Your task to perform on an android device: Search for the best rated 150-piece drill bit set on Aliexpress. Image 0: 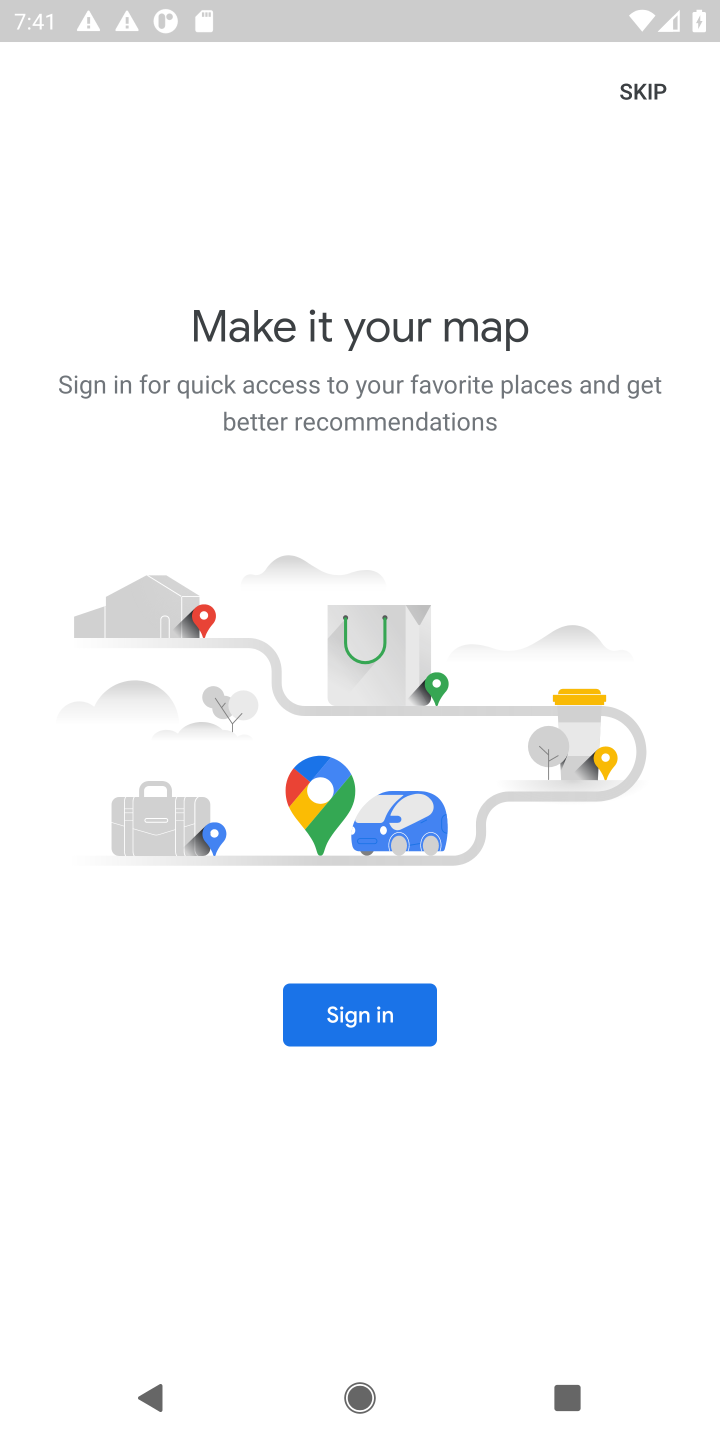
Step 0: press home button
Your task to perform on an android device: Search for the best rated 150-piece drill bit set on Aliexpress. Image 1: 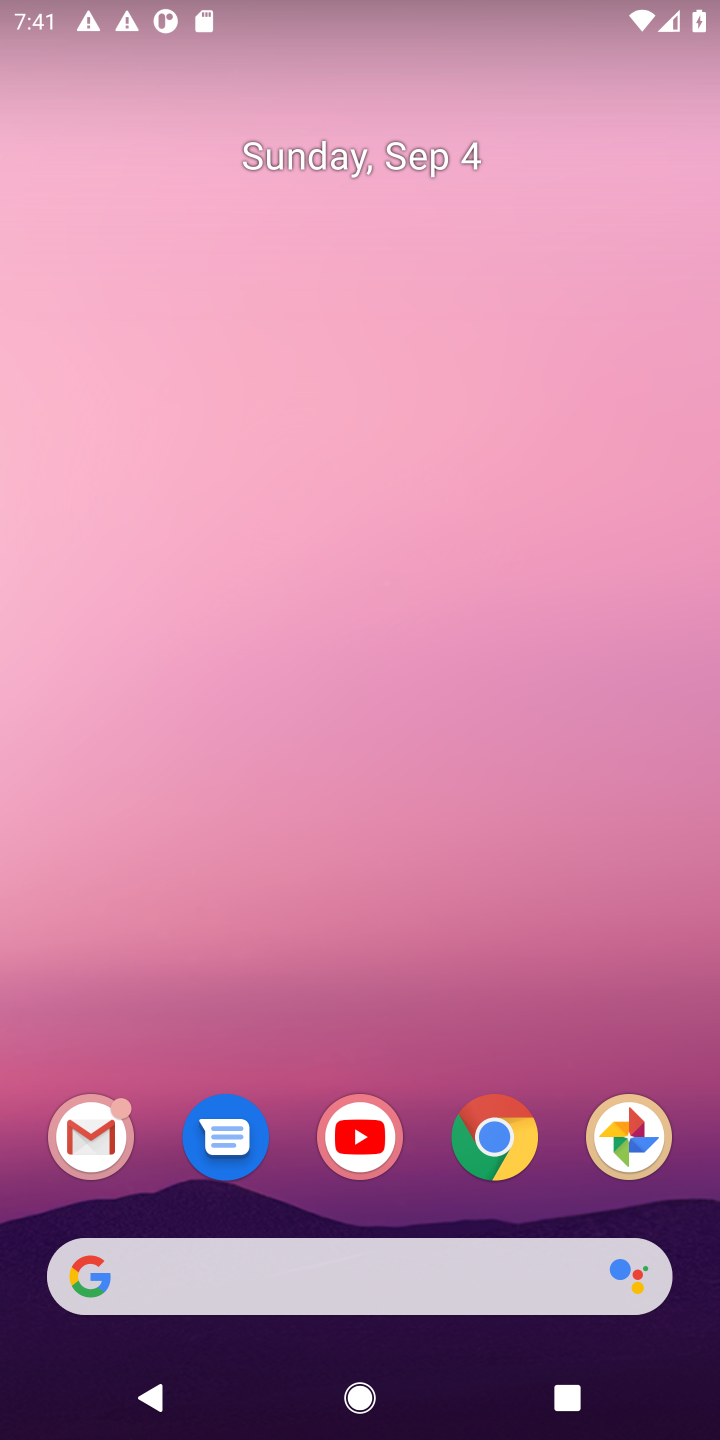
Step 1: click (491, 1138)
Your task to perform on an android device: Search for the best rated 150-piece drill bit set on Aliexpress. Image 2: 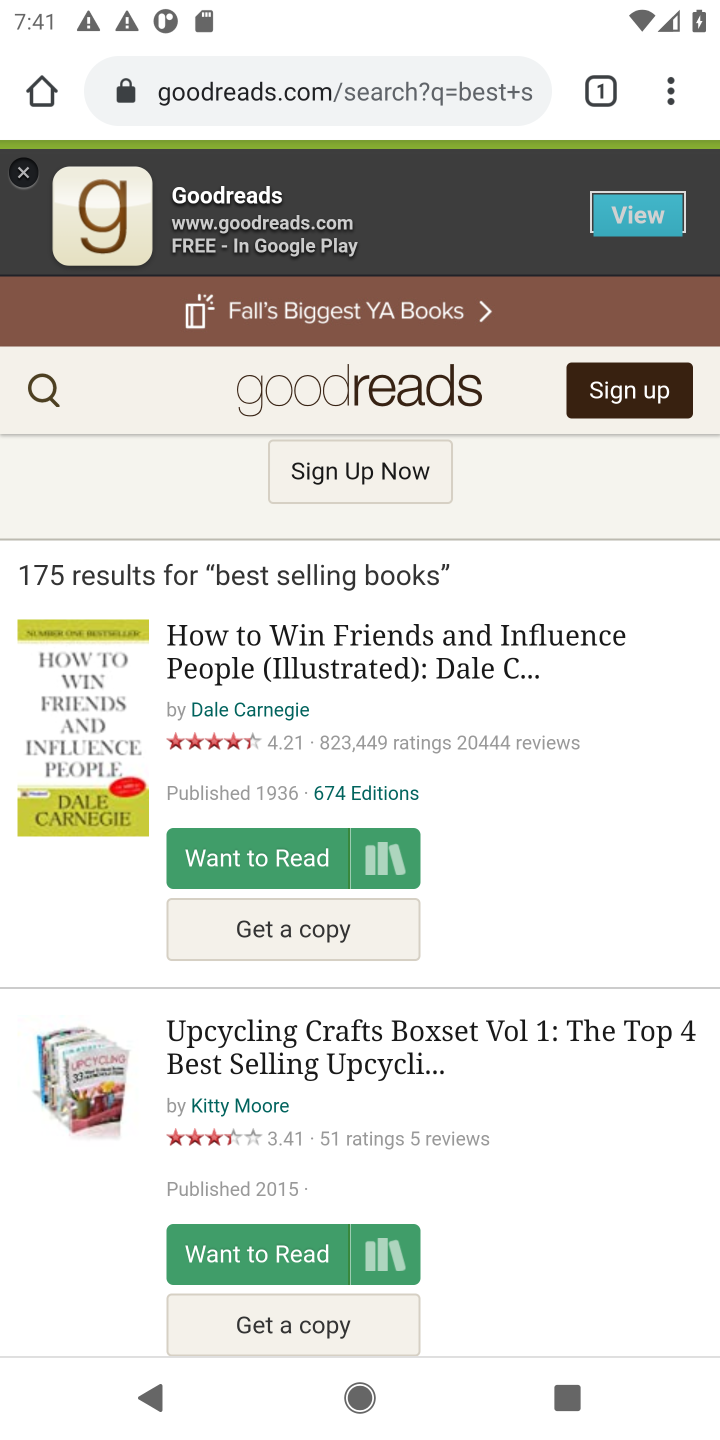
Step 2: click (419, 83)
Your task to perform on an android device: Search for the best rated 150-piece drill bit set on Aliexpress. Image 3: 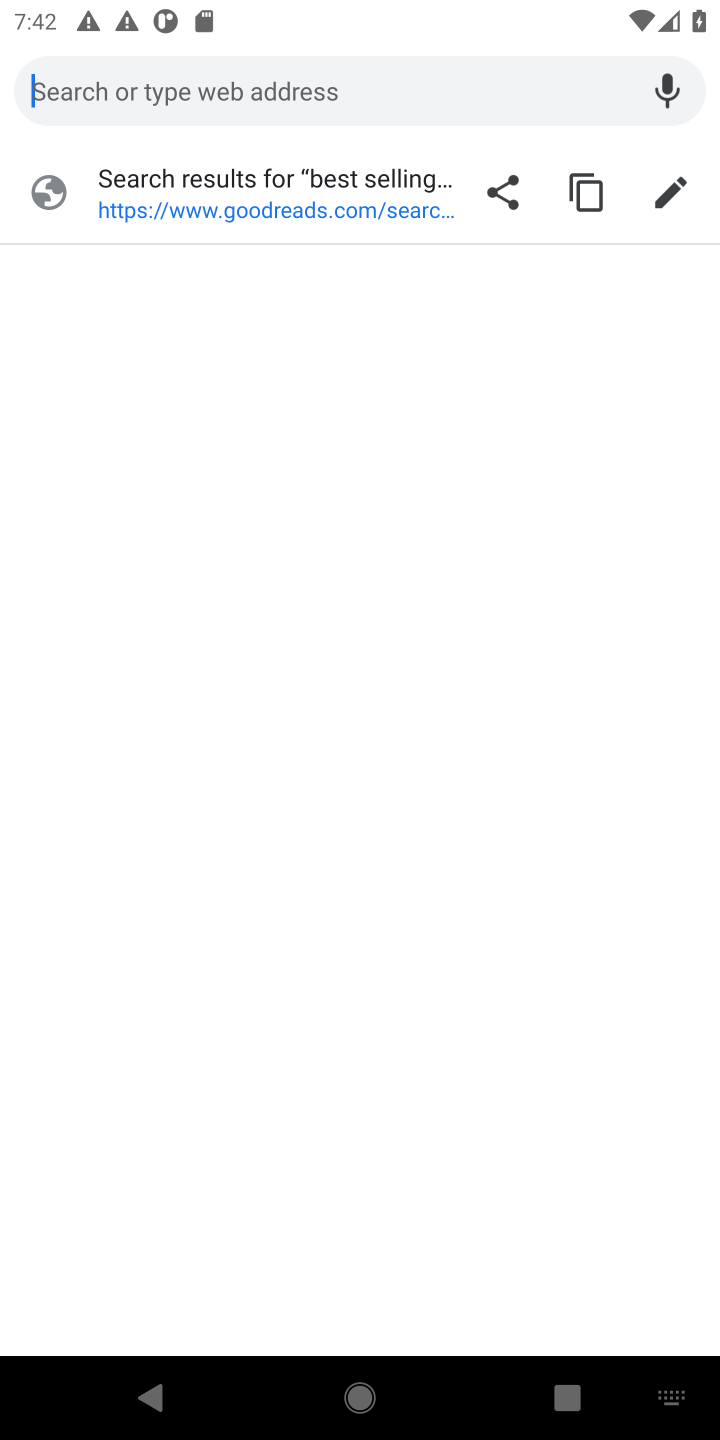
Step 3: type "Aliexpress"
Your task to perform on an android device: Search for the best rated 150-piece drill bit set on Aliexpress. Image 4: 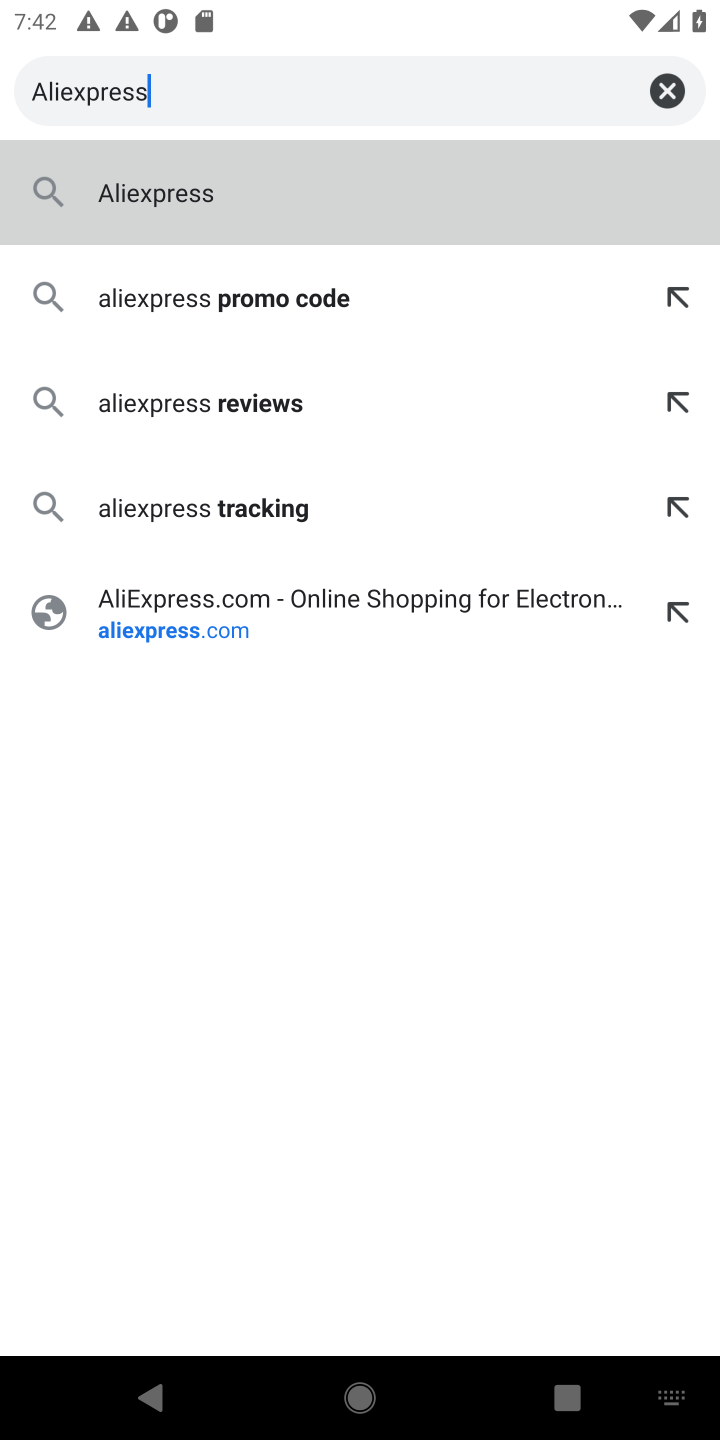
Step 4: click (124, 206)
Your task to perform on an android device: Search for the best rated 150-piece drill bit set on Aliexpress. Image 5: 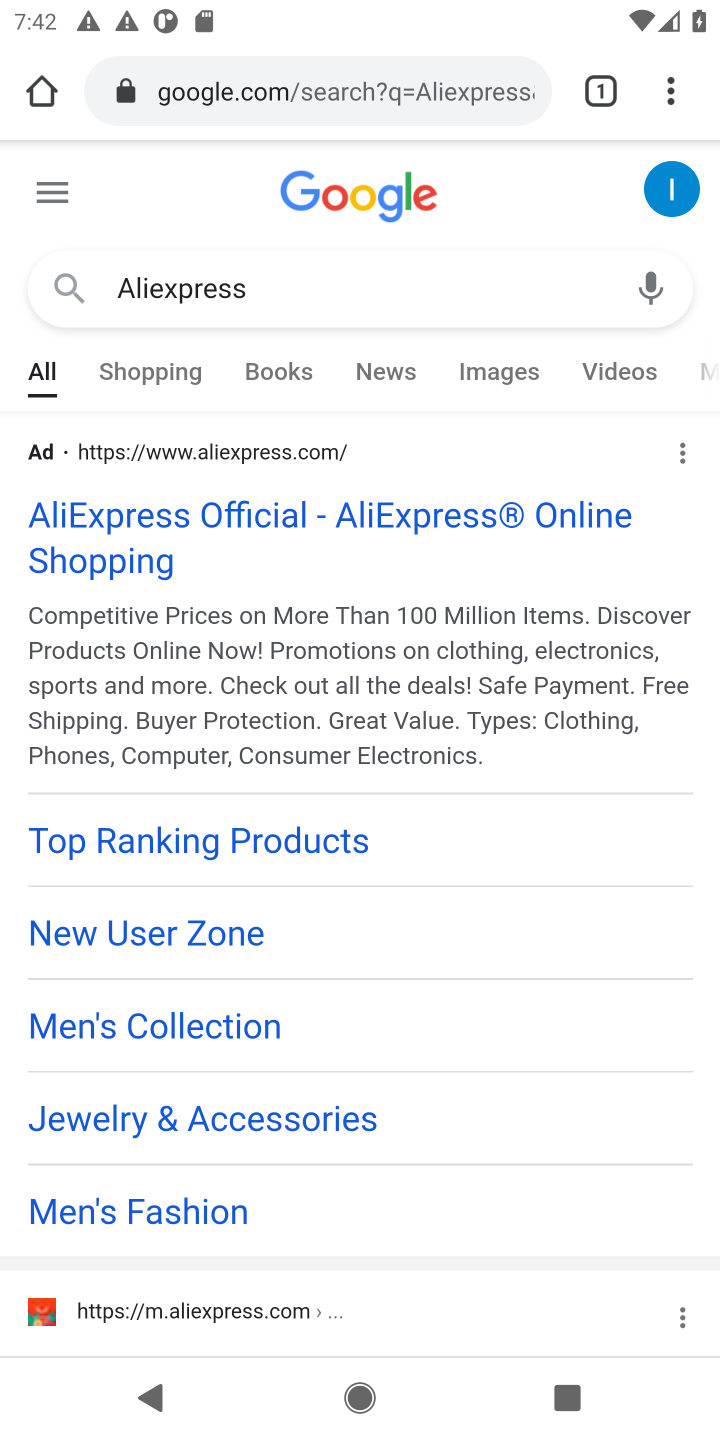
Step 5: drag from (436, 1319) to (480, 814)
Your task to perform on an android device: Search for the best rated 150-piece drill bit set on Aliexpress. Image 6: 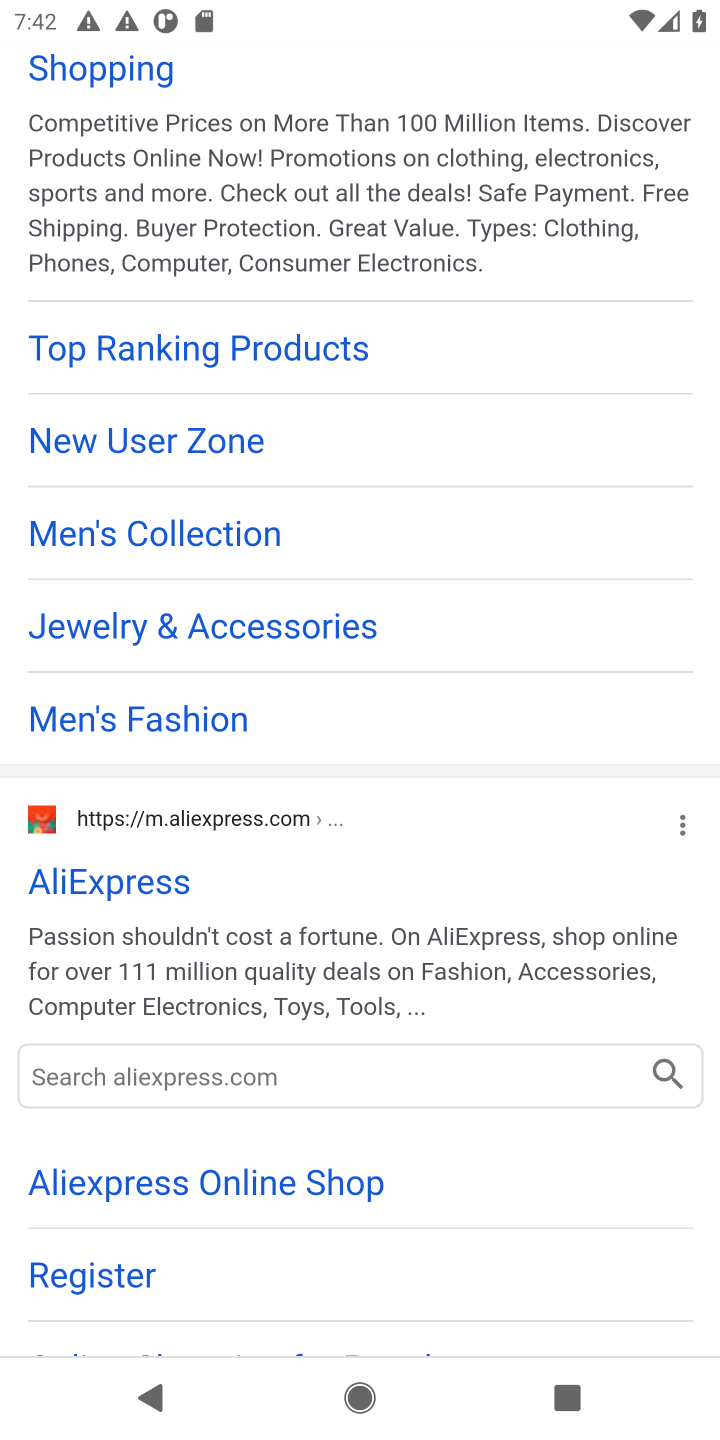
Step 6: click (192, 827)
Your task to perform on an android device: Search for the best rated 150-piece drill bit set on Aliexpress. Image 7: 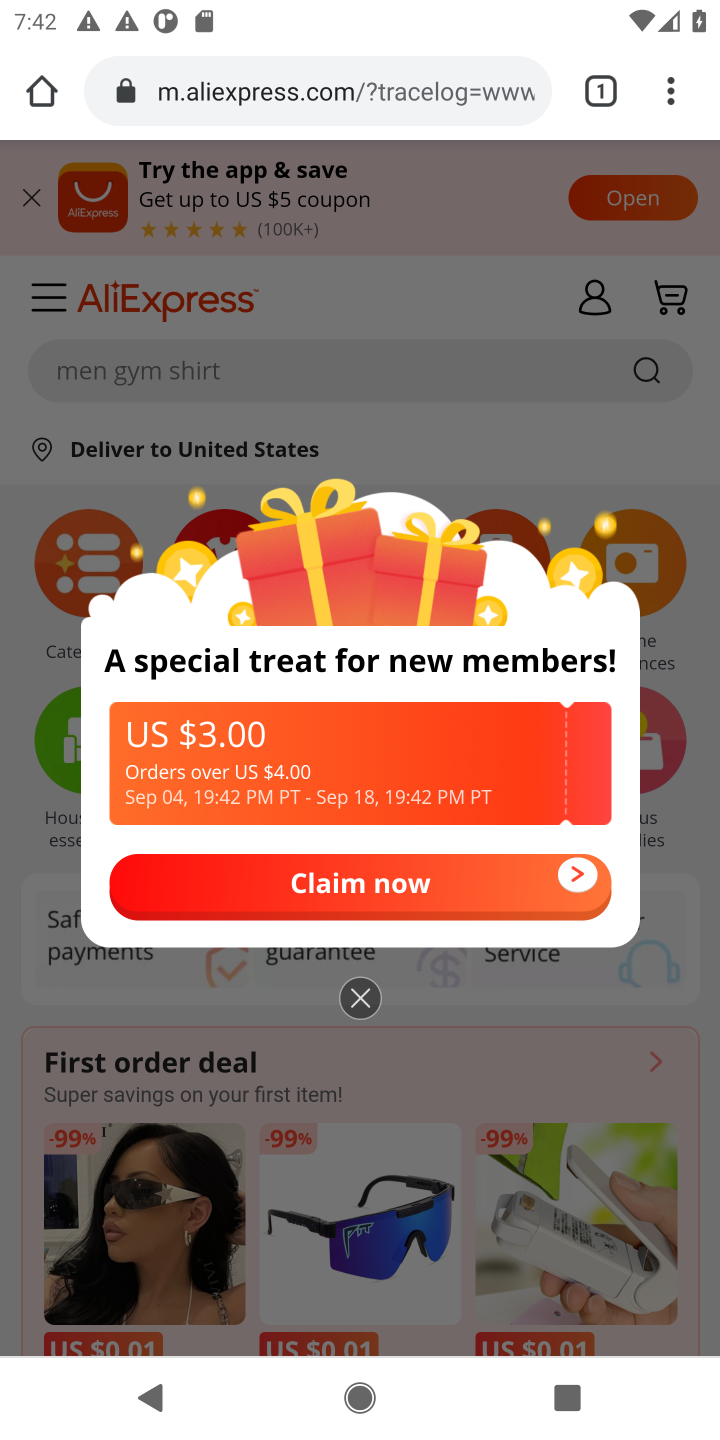
Step 7: click (526, 358)
Your task to perform on an android device: Search for the best rated 150-piece drill bit set on Aliexpress. Image 8: 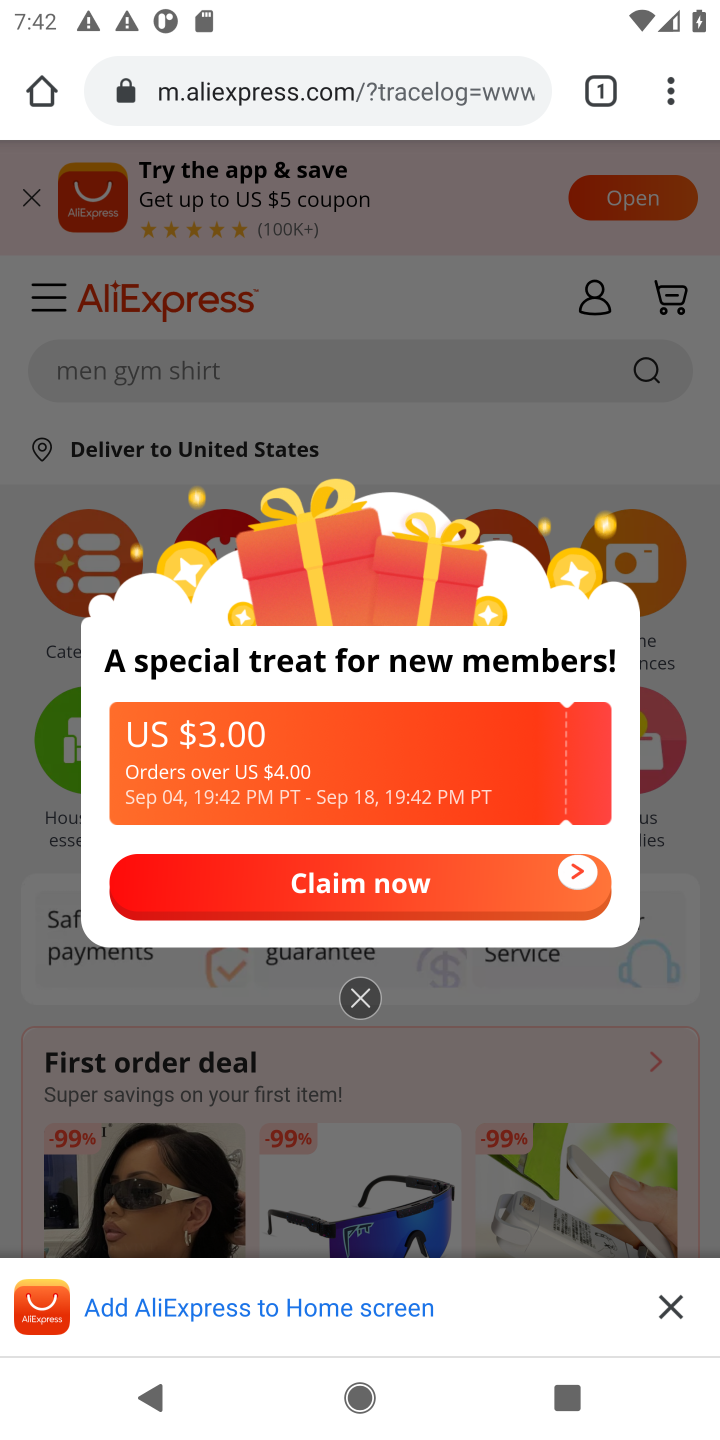
Step 8: click (665, 1307)
Your task to perform on an android device: Search for the best rated 150-piece drill bit set on Aliexpress. Image 9: 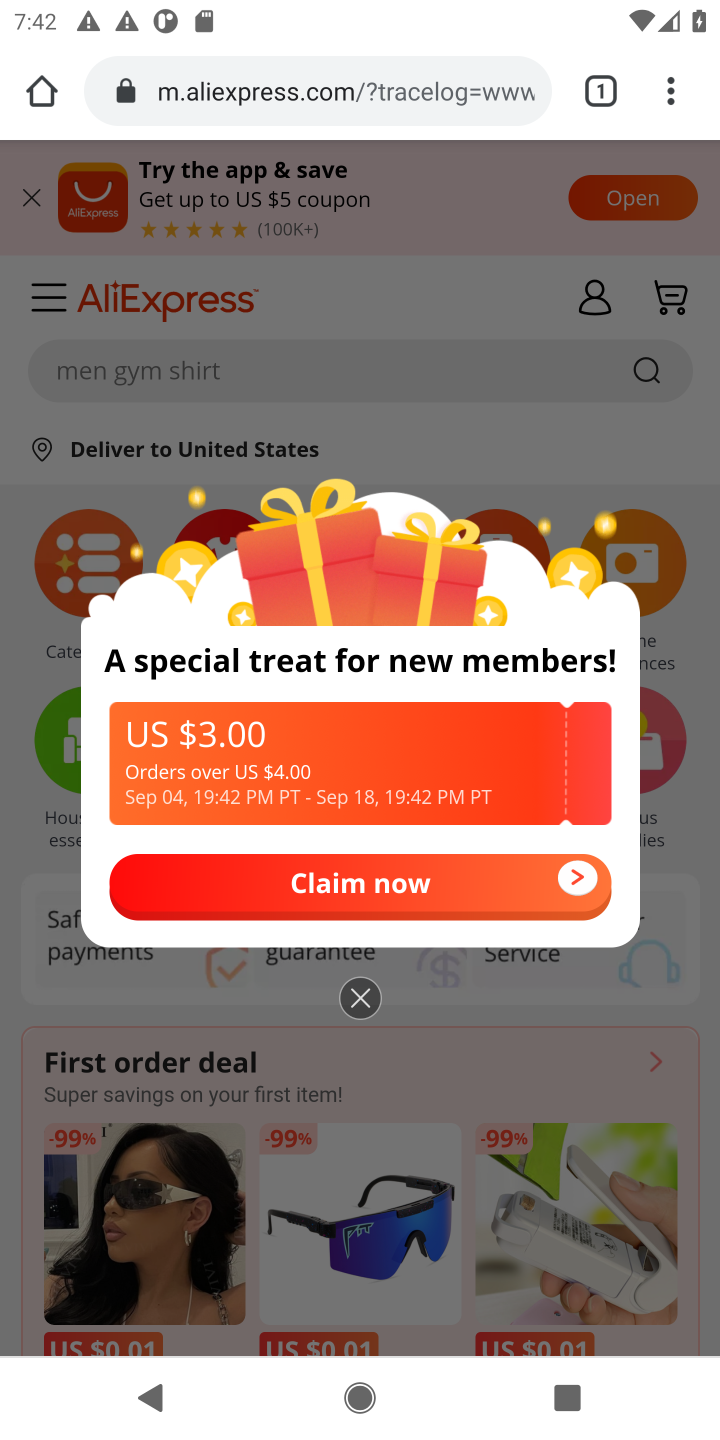
Step 9: click (352, 1001)
Your task to perform on an android device: Search for the best rated 150-piece drill bit set on Aliexpress. Image 10: 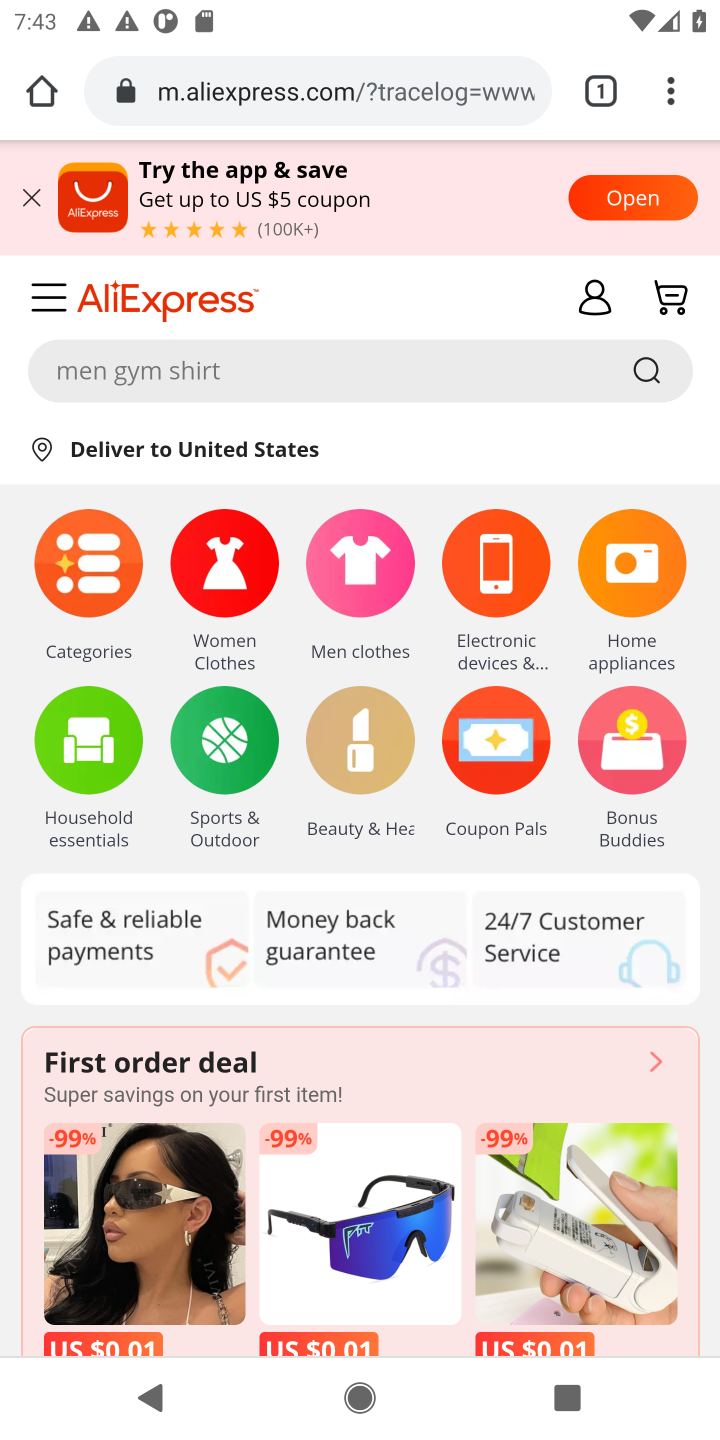
Step 10: click (328, 378)
Your task to perform on an android device: Search for the best rated 150-piece drill bit set on Aliexpress. Image 11: 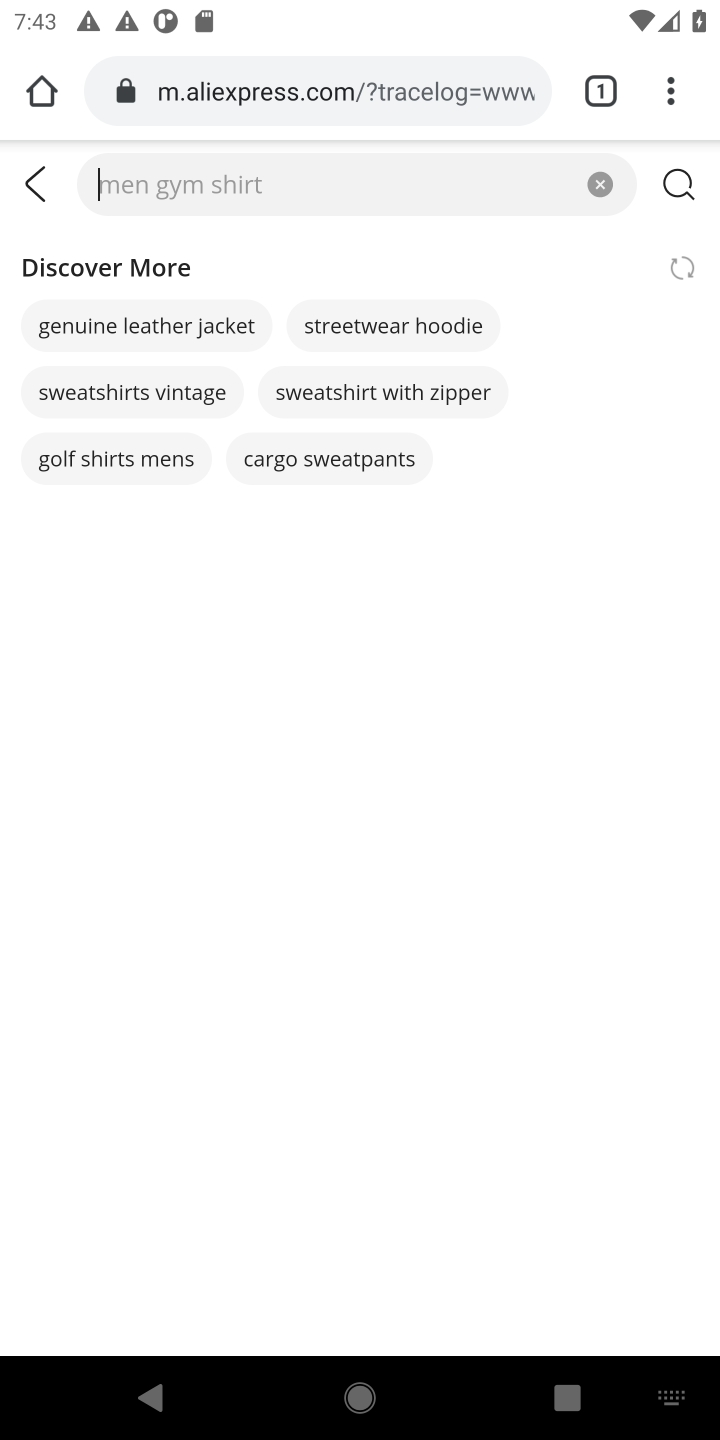
Step 11: type "best rated 150-piece drill bit set "
Your task to perform on an android device: Search for the best rated 150-piece drill bit set on Aliexpress. Image 12: 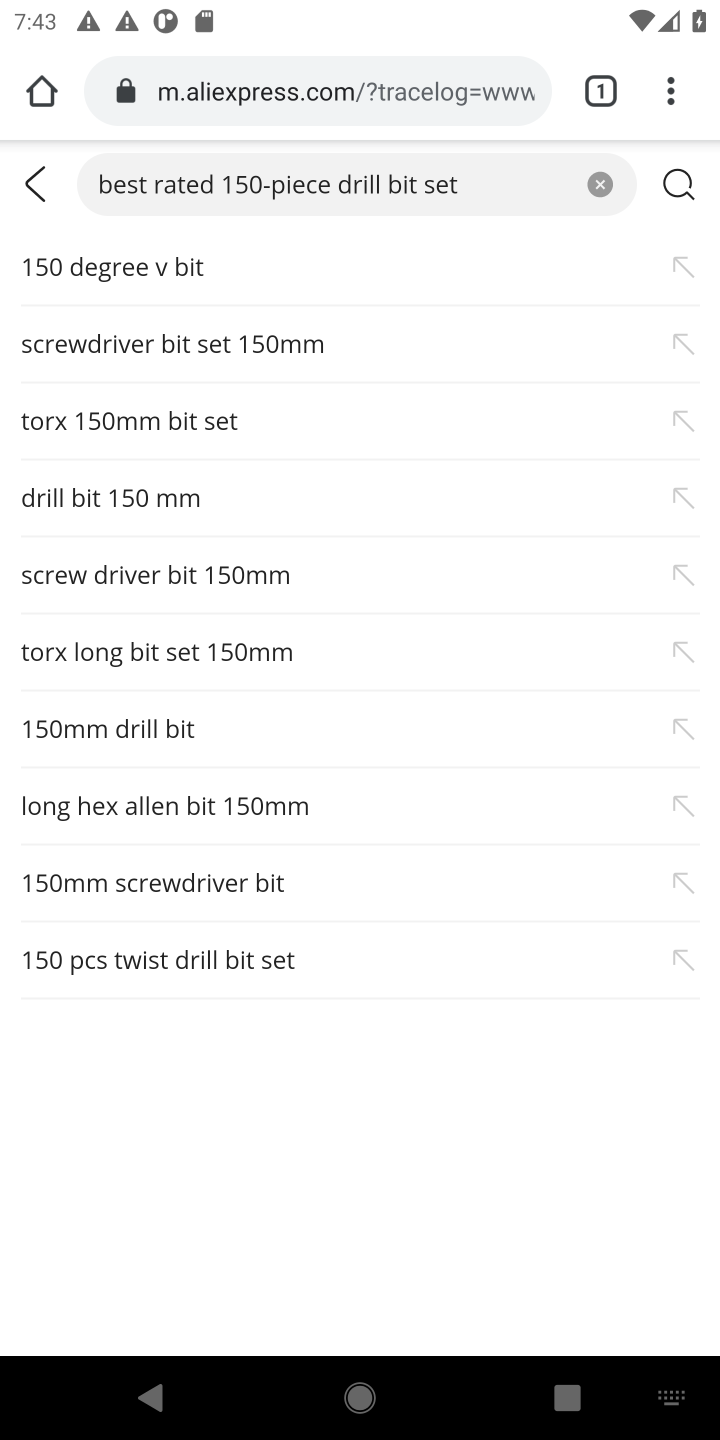
Step 12: click (678, 174)
Your task to perform on an android device: Search for the best rated 150-piece drill bit set on Aliexpress. Image 13: 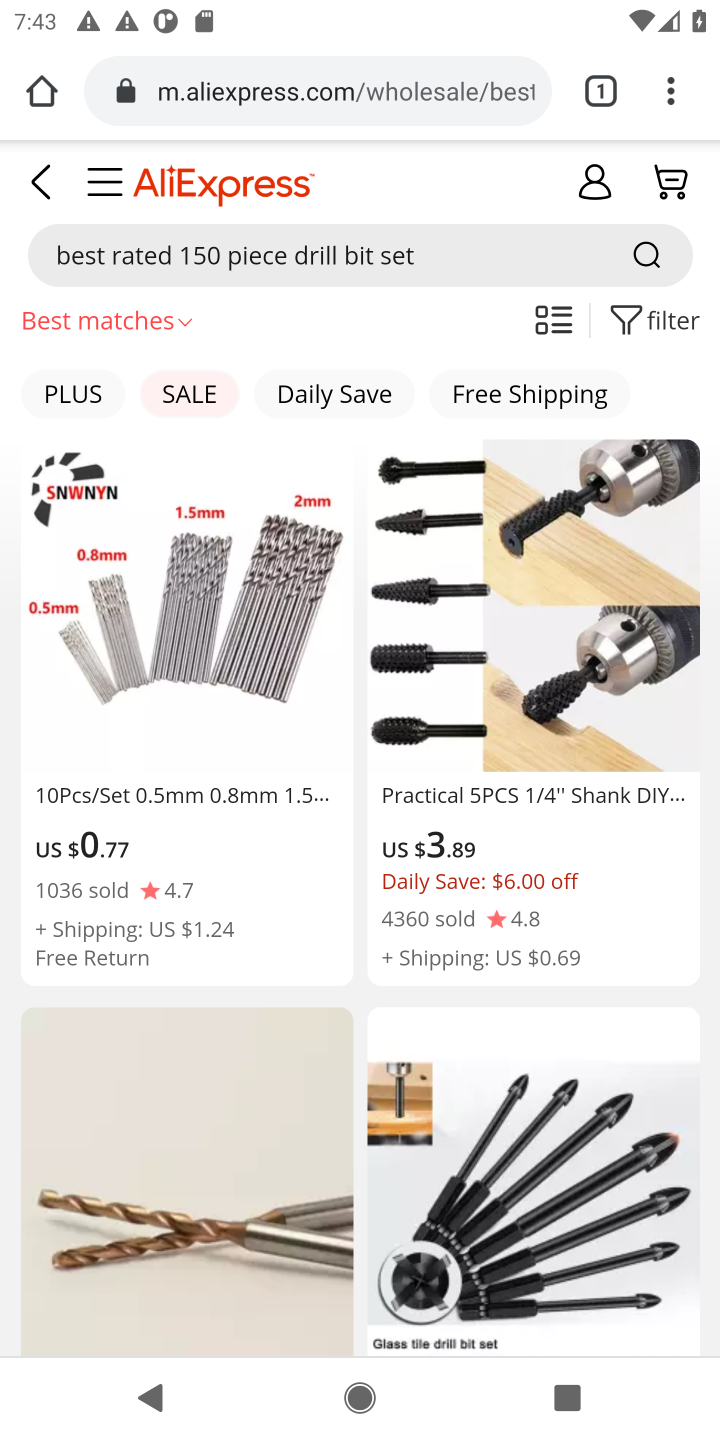
Step 13: task complete